Your task to perform on an android device: toggle wifi Image 0: 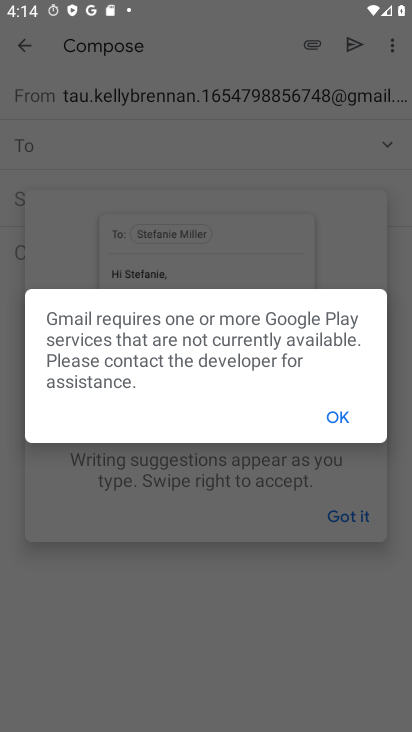
Step 0: press home button
Your task to perform on an android device: toggle wifi Image 1: 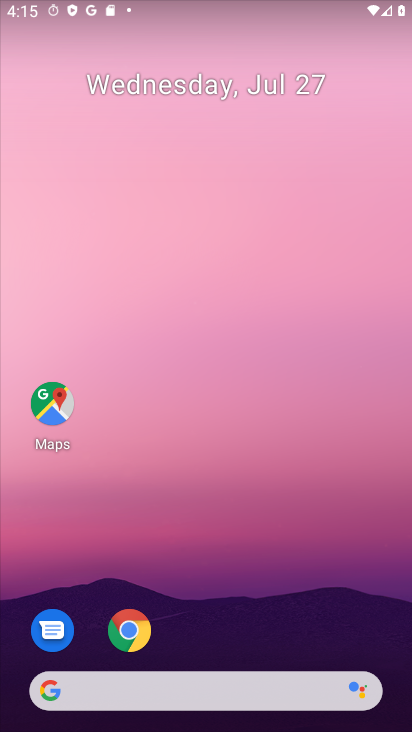
Step 1: drag from (210, 539) to (227, 34)
Your task to perform on an android device: toggle wifi Image 2: 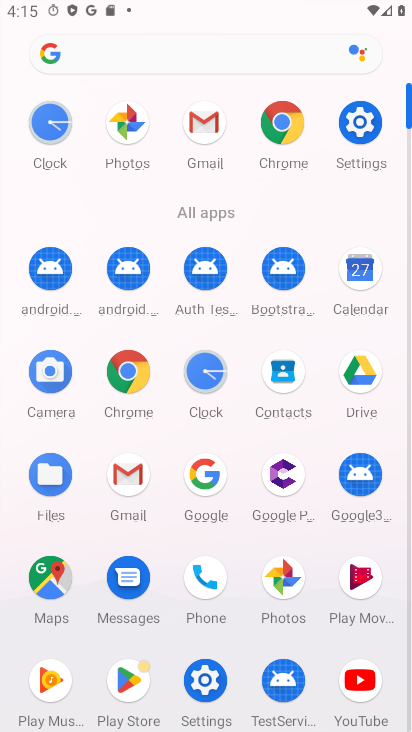
Step 2: click (368, 142)
Your task to perform on an android device: toggle wifi Image 3: 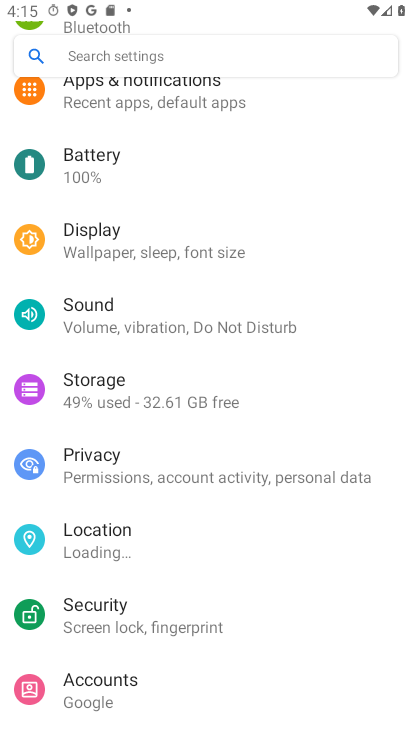
Step 3: drag from (149, 157) to (138, 452)
Your task to perform on an android device: toggle wifi Image 4: 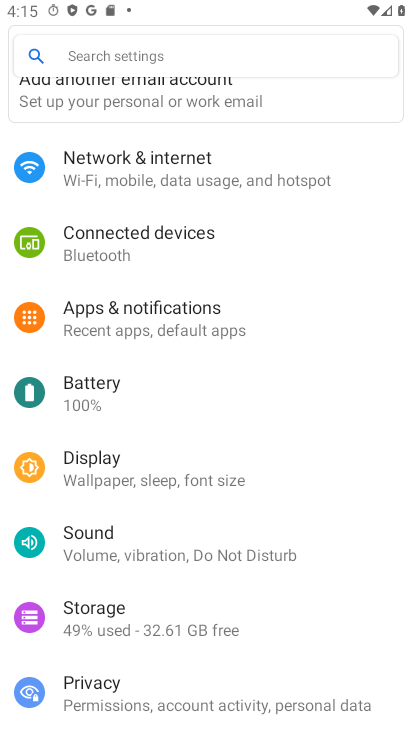
Step 4: click (154, 184)
Your task to perform on an android device: toggle wifi Image 5: 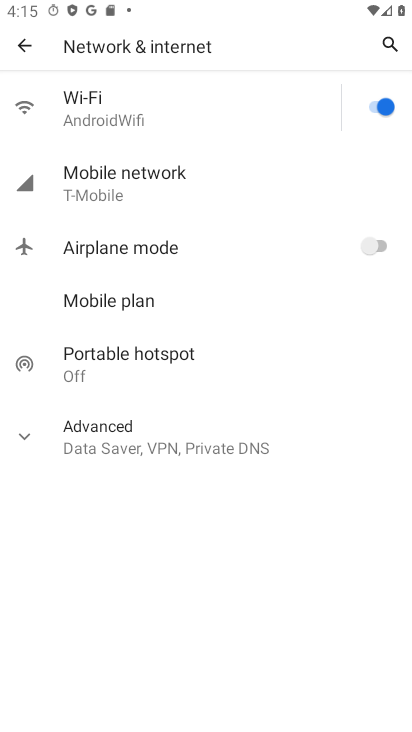
Step 5: click (356, 110)
Your task to perform on an android device: toggle wifi Image 6: 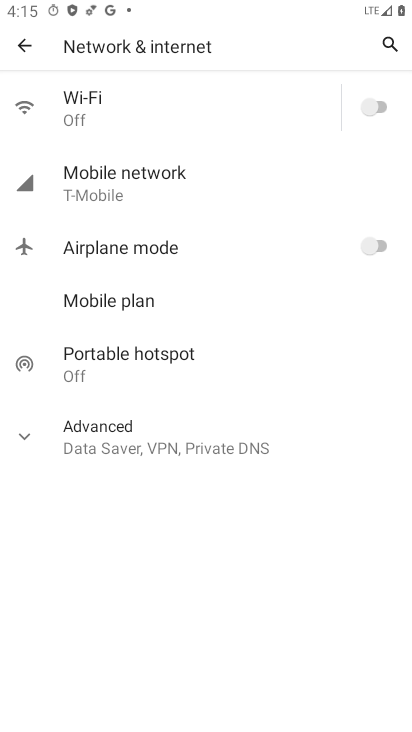
Step 6: task complete